Your task to perform on an android device: turn on data saver in the chrome app Image 0: 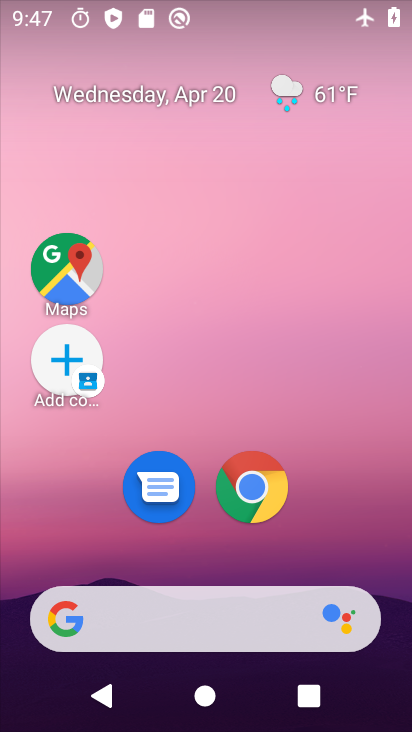
Step 0: click (259, 492)
Your task to perform on an android device: turn on data saver in the chrome app Image 1: 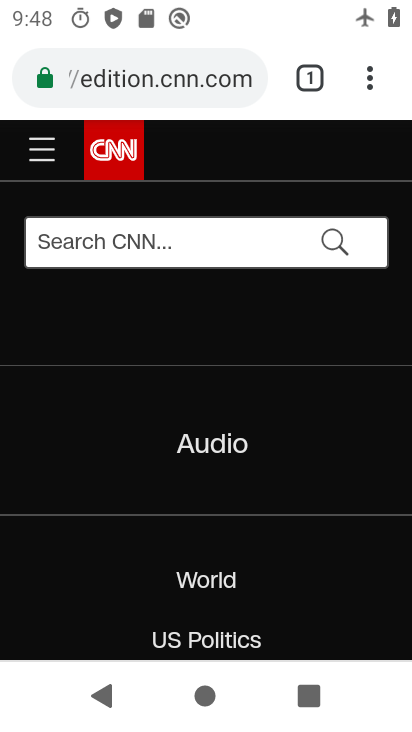
Step 1: click (361, 76)
Your task to perform on an android device: turn on data saver in the chrome app Image 2: 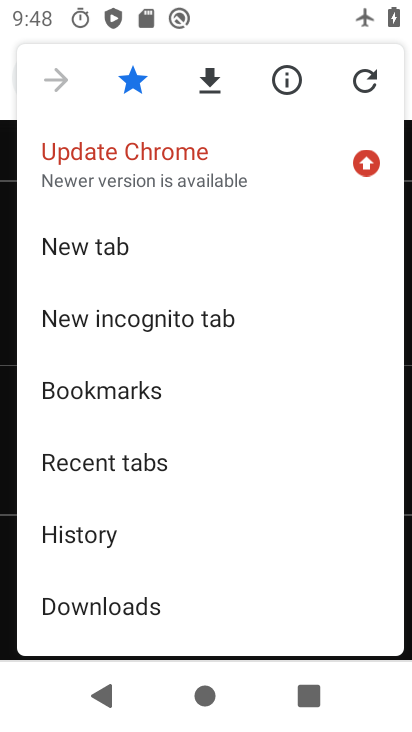
Step 2: drag from (201, 597) to (224, 390)
Your task to perform on an android device: turn on data saver in the chrome app Image 3: 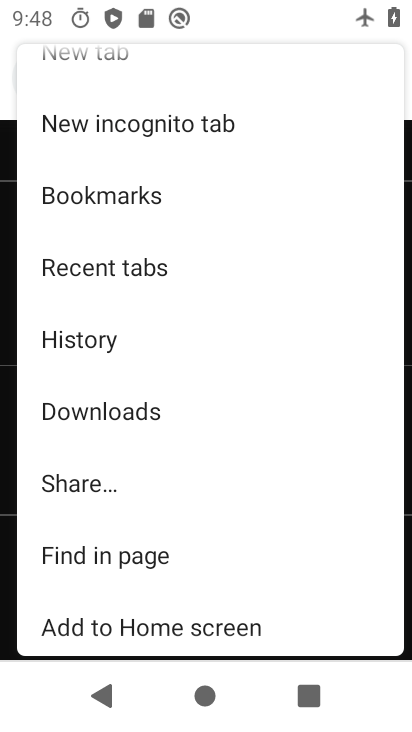
Step 3: drag from (175, 564) to (178, 411)
Your task to perform on an android device: turn on data saver in the chrome app Image 4: 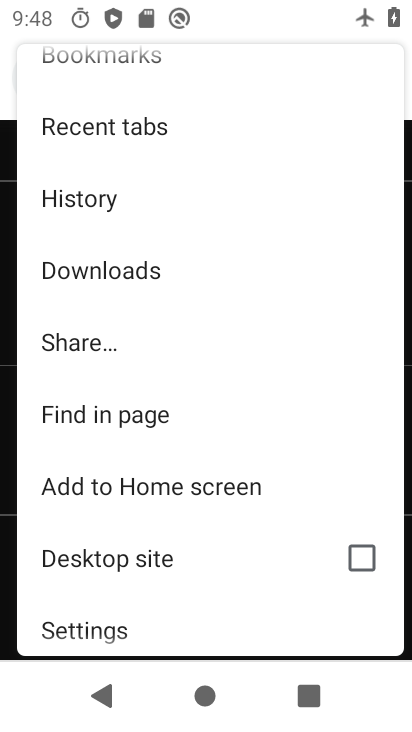
Step 4: click (172, 620)
Your task to perform on an android device: turn on data saver in the chrome app Image 5: 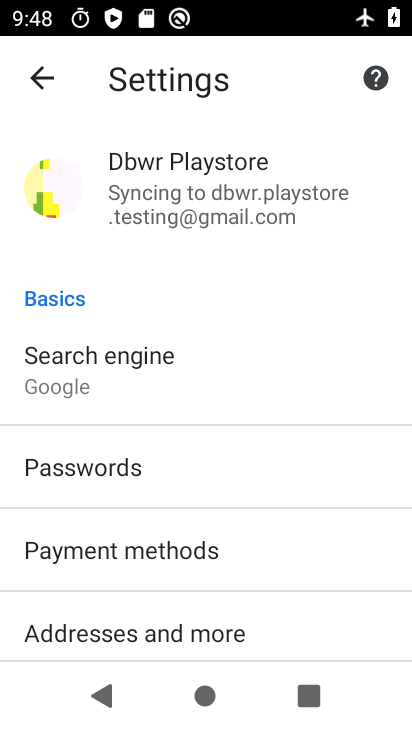
Step 5: drag from (177, 621) to (154, 517)
Your task to perform on an android device: turn on data saver in the chrome app Image 6: 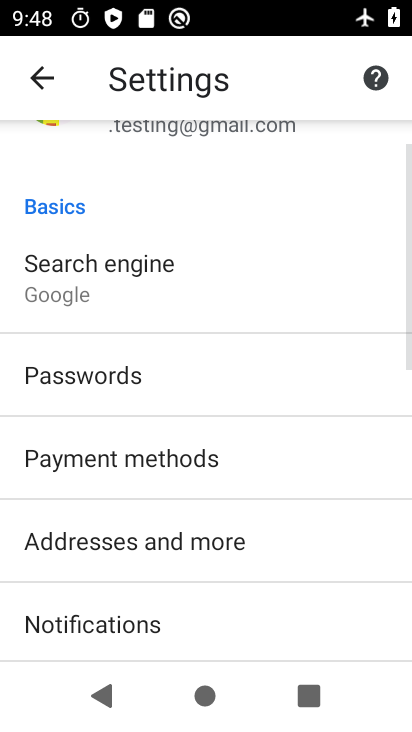
Step 6: drag from (155, 617) to (136, 481)
Your task to perform on an android device: turn on data saver in the chrome app Image 7: 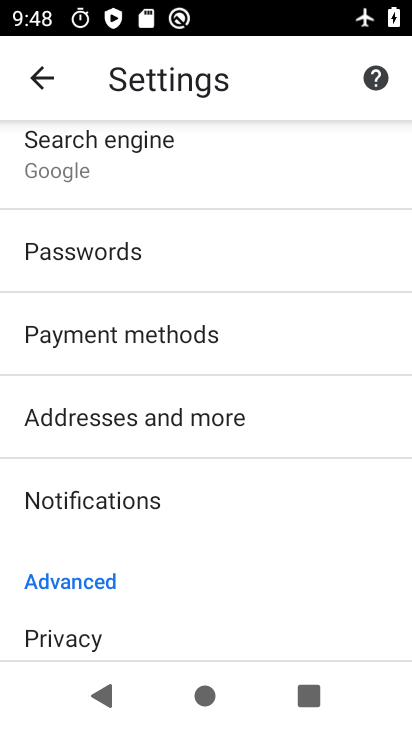
Step 7: drag from (170, 576) to (152, 469)
Your task to perform on an android device: turn on data saver in the chrome app Image 8: 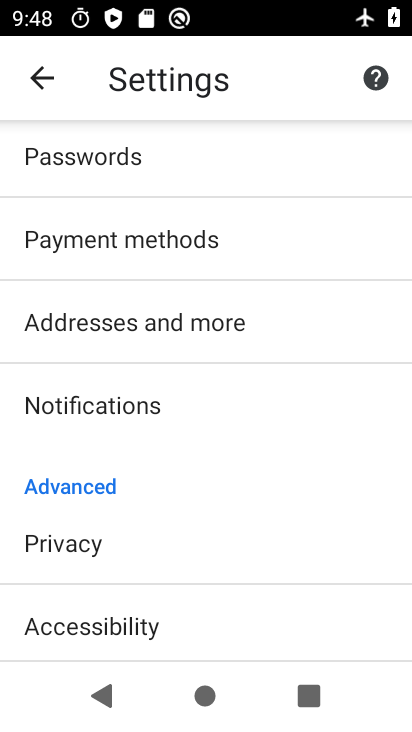
Step 8: drag from (186, 583) to (151, 480)
Your task to perform on an android device: turn on data saver in the chrome app Image 9: 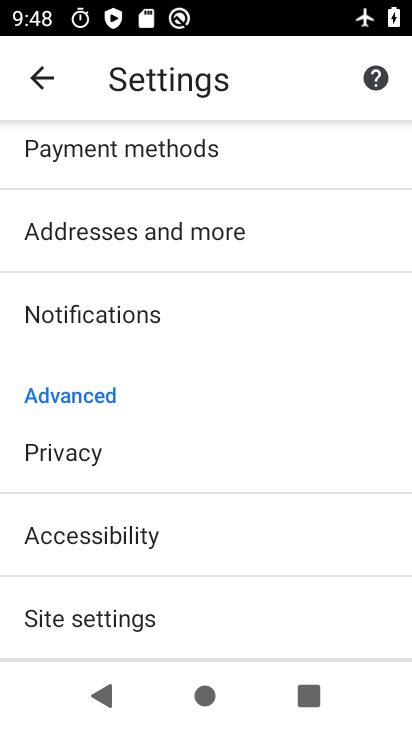
Step 9: drag from (174, 584) to (180, 474)
Your task to perform on an android device: turn on data saver in the chrome app Image 10: 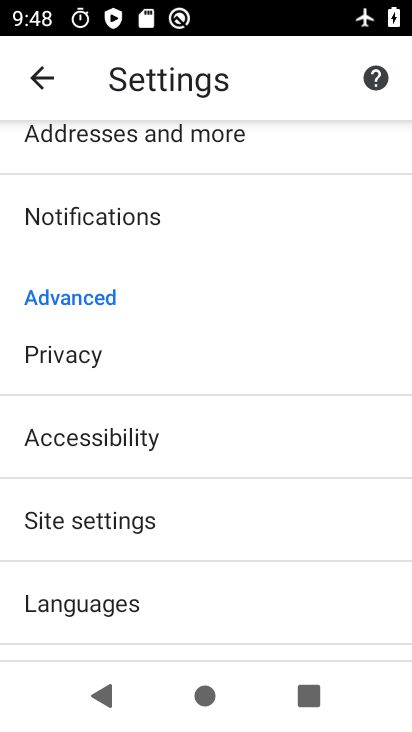
Step 10: drag from (170, 550) to (166, 419)
Your task to perform on an android device: turn on data saver in the chrome app Image 11: 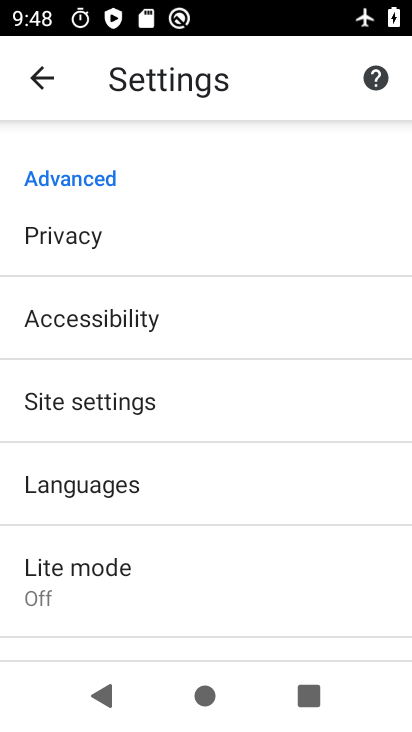
Step 11: drag from (173, 522) to (185, 420)
Your task to perform on an android device: turn on data saver in the chrome app Image 12: 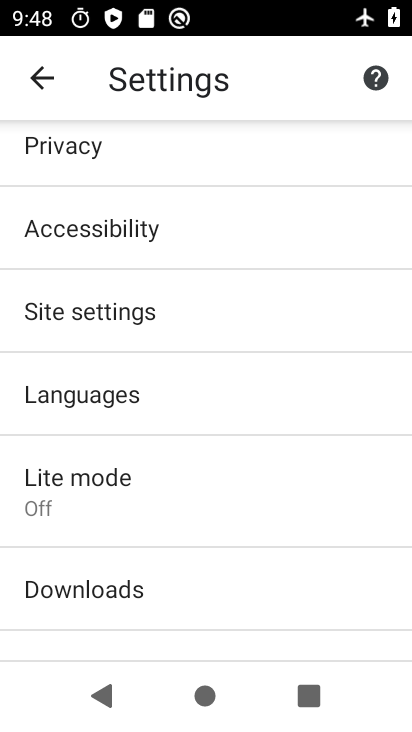
Step 12: drag from (236, 567) to (224, 461)
Your task to perform on an android device: turn on data saver in the chrome app Image 13: 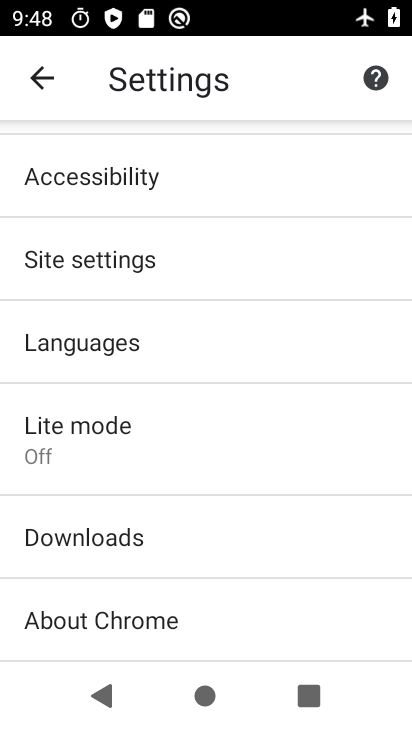
Step 13: drag from (236, 526) to (225, 415)
Your task to perform on an android device: turn on data saver in the chrome app Image 14: 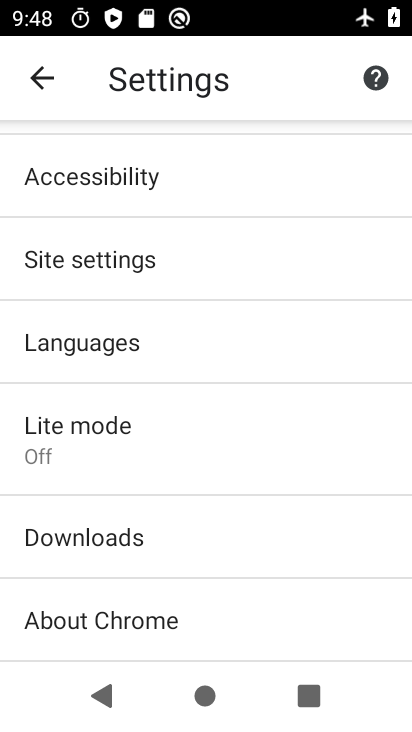
Step 14: drag from (252, 533) to (271, 365)
Your task to perform on an android device: turn on data saver in the chrome app Image 15: 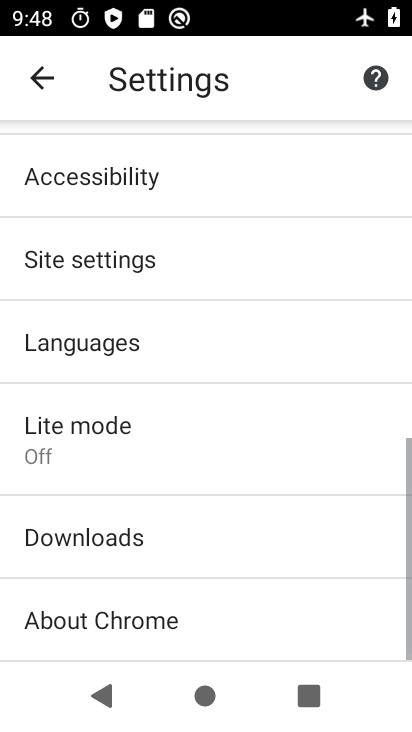
Step 15: click (239, 391)
Your task to perform on an android device: turn on data saver in the chrome app Image 16: 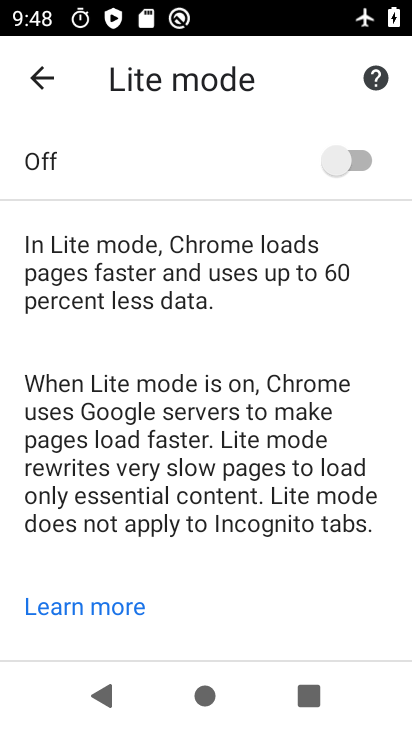
Step 16: click (352, 144)
Your task to perform on an android device: turn on data saver in the chrome app Image 17: 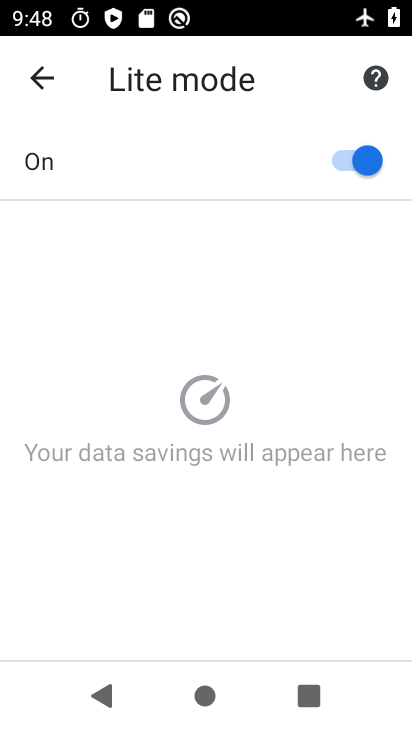
Step 17: task complete